Your task to perform on an android device: check google app version Image 0: 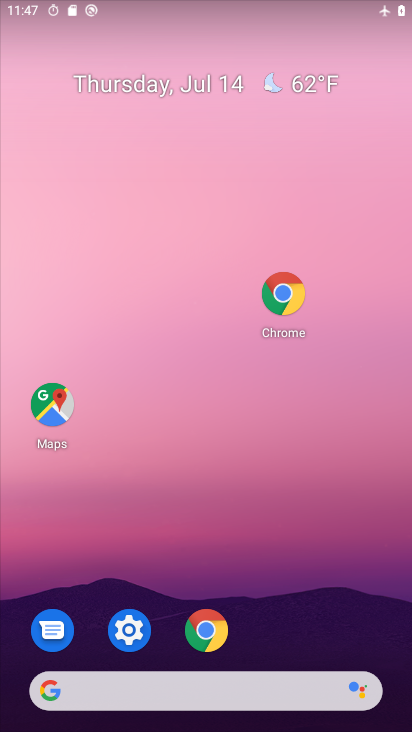
Step 0: drag from (206, 297) to (192, 213)
Your task to perform on an android device: check google app version Image 1: 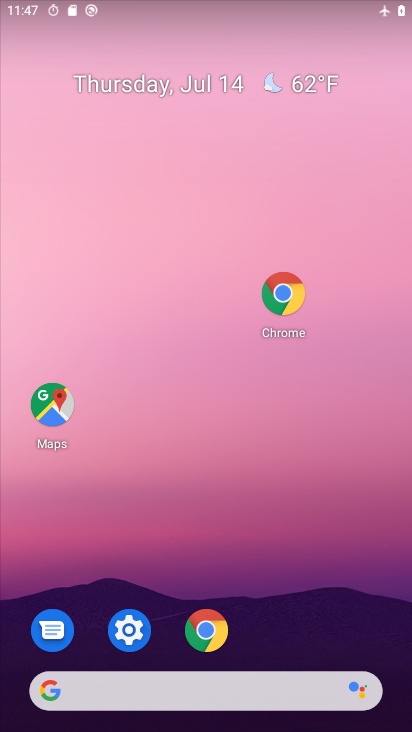
Step 1: click (270, 187)
Your task to perform on an android device: check google app version Image 2: 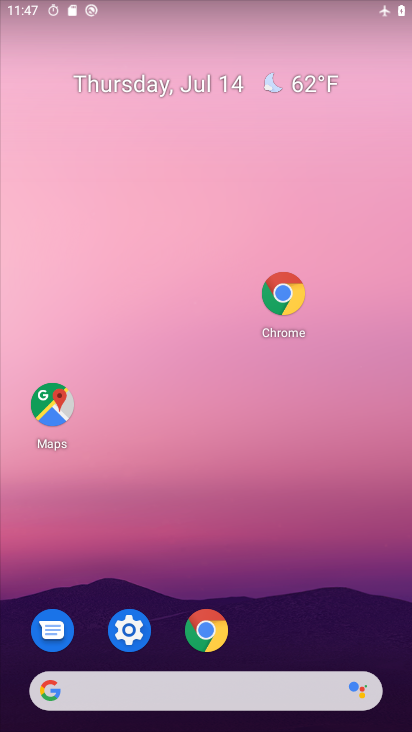
Step 2: drag from (256, 528) to (200, 62)
Your task to perform on an android device: check google app version Image 3: 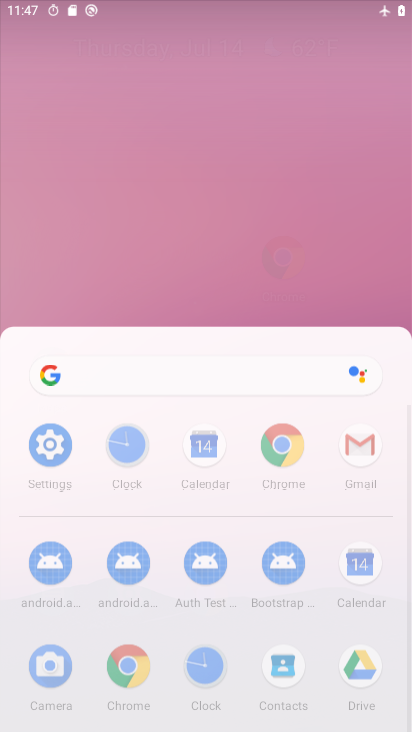
Step 3: drag from (178, 517) to (162, 142)
Your task to perform on an android device: check google app version Image 4: 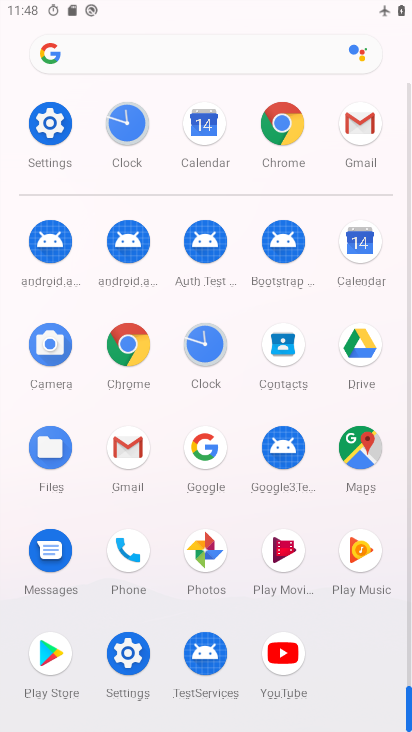
Step 4: click (214, 447)
Your task to perform on an android device: check google app version Image 5: 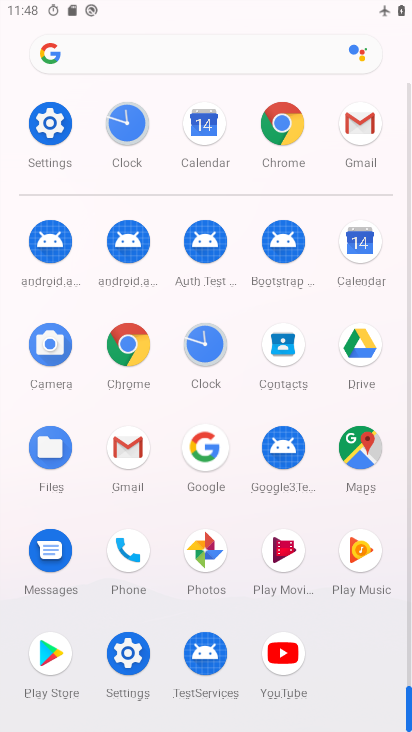
Step 5: click (213, 447)
Your task to perform on an android device: check google app version Image 6: 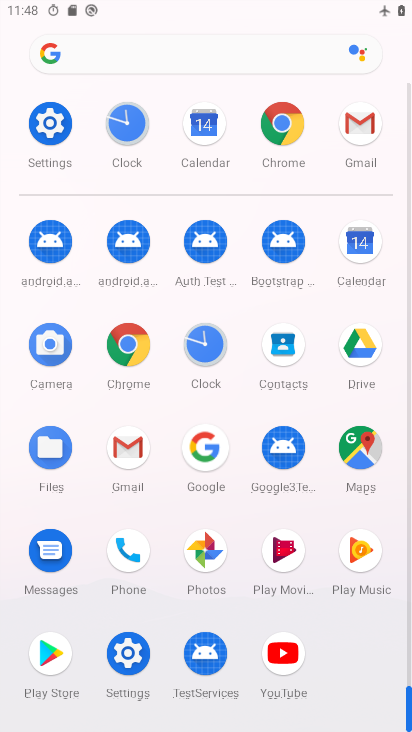
Step 6: click (213, 447)
Your task to perform on an android device: check google app version Image 7: 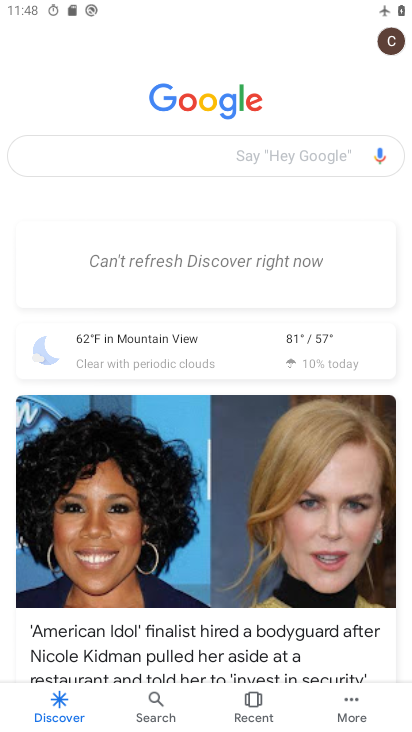
Step 7: click (344, 706)
Your task to perform on an android device: check google app version Image 8: 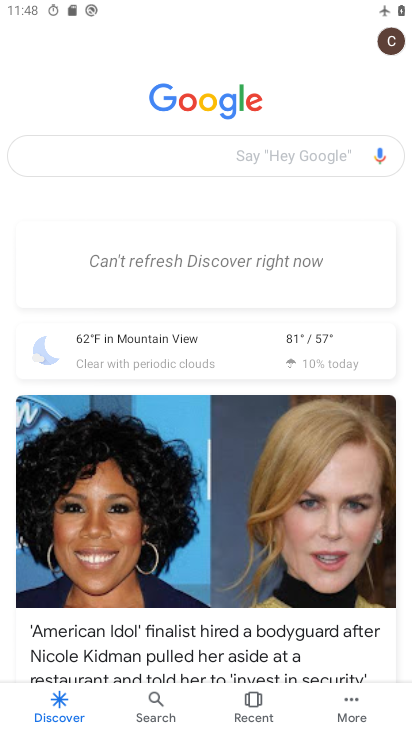
Step 8: click (344, 705)
Your task to perform on an android device: check google app version Image 9: 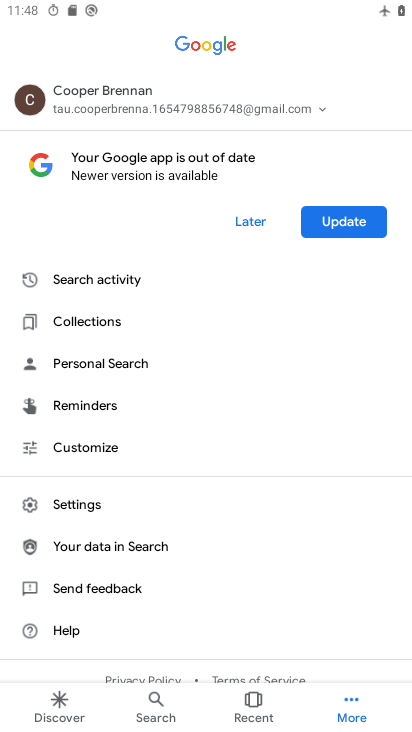
Step 9: drag from (115, 489) to (168, 179)
Your task to perform on an android device: check google app version Image 10: 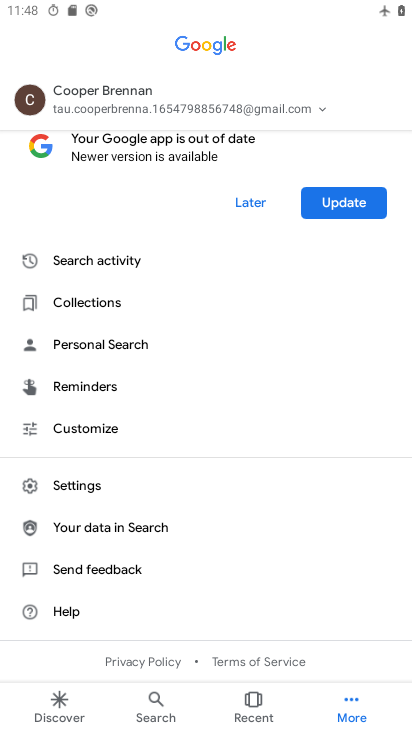
Step 10: click (61, 482)
Your task to perform on an android device: check google app version Image 11: 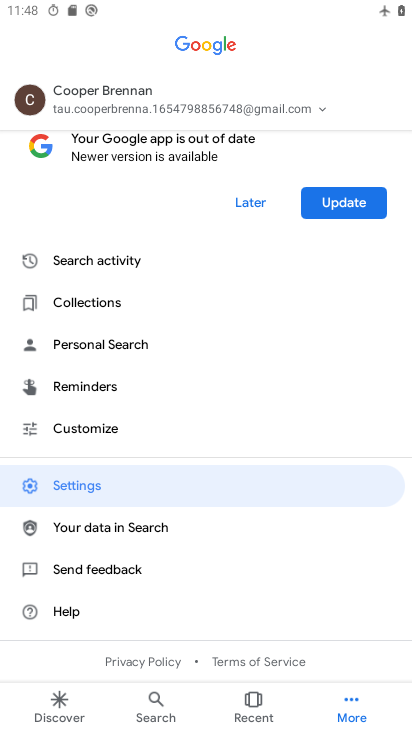
Step 11: click (349, 704)
Your task to perform on an android device: check google app version Image 12: 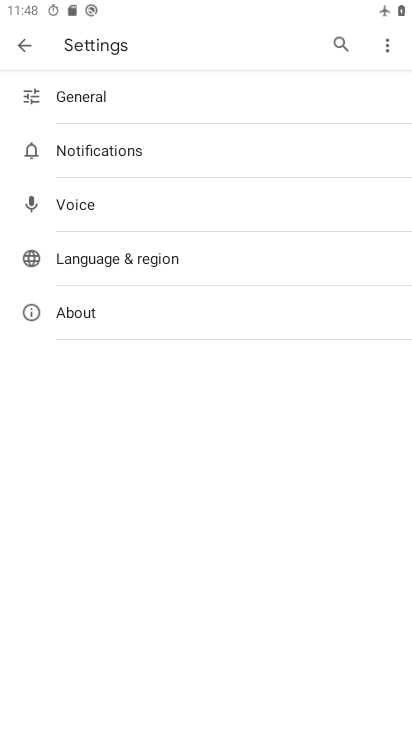
Step 12: click (97, 307)
Your task to perform on an android device: check google app version Image 13: 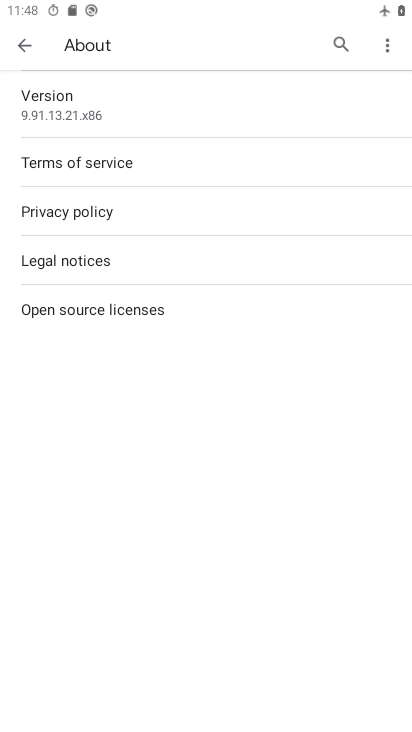
Step 13: click (32, 111)
Your task to perform on an android device: check google app version Image 14: 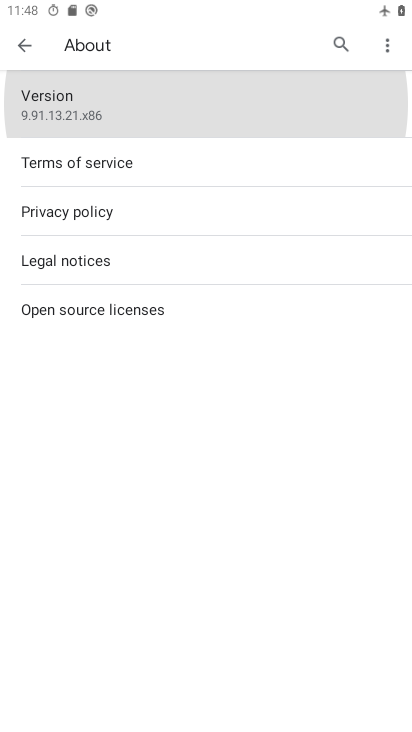
Step 14: click (32, 110)
Your task to perform on an android device: check google app version Image 15: 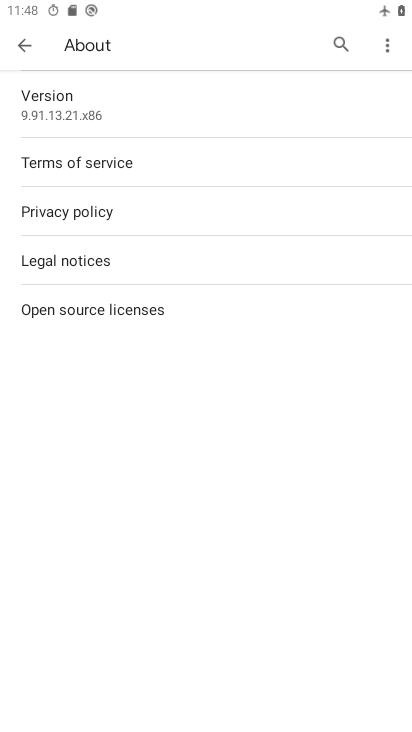
Step 15: task complete